Your task to perform on an android device: Open location settings Image 0: 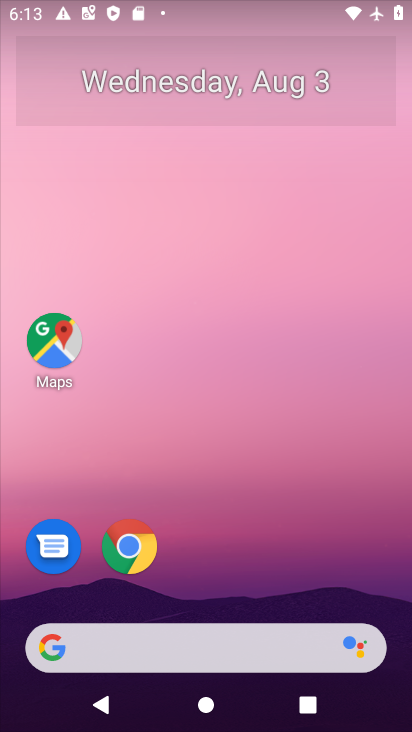
Step 0: press home button
Your task to perform on an android device: Open location settings Image 1: 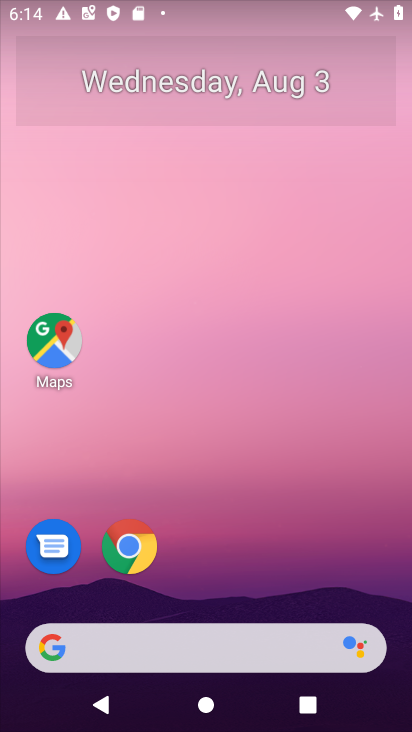
Step 1: drag from (244, 610) to (284, 5)
Your task to perform on an android device: Open location settings Image 2: 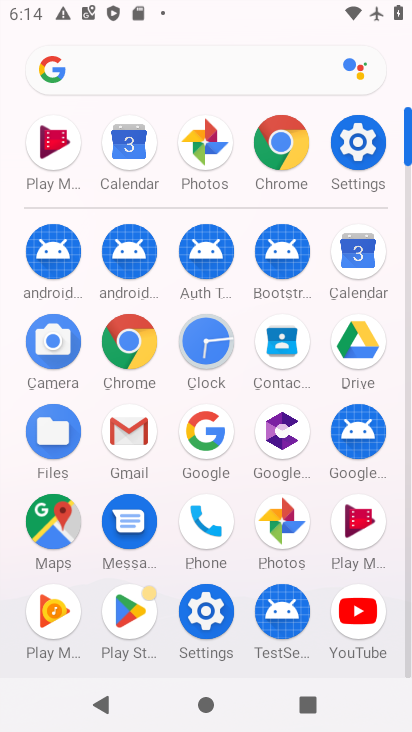
Step 2: click (367, 147)
Your task to perform on an android device: Open location settings Image 3: 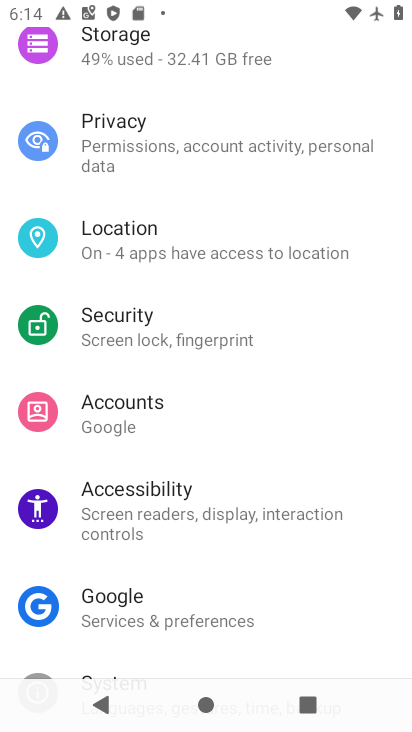
Step 3: click (158, 248)
Your task to perform on an android device: Open location settings Image 4: 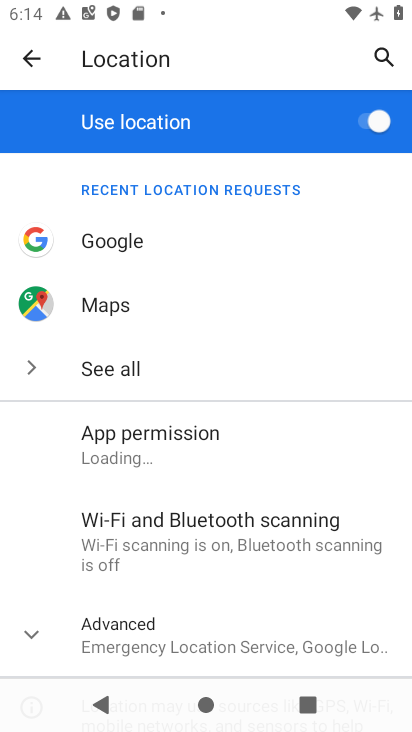
Step 4: task complete